Your task to perform on an android device: Clear all items from cart on target.com. Search for "usb-c to usb-b" on target.com, select the first entry, add it to the cart, then select checkout. Image 0: 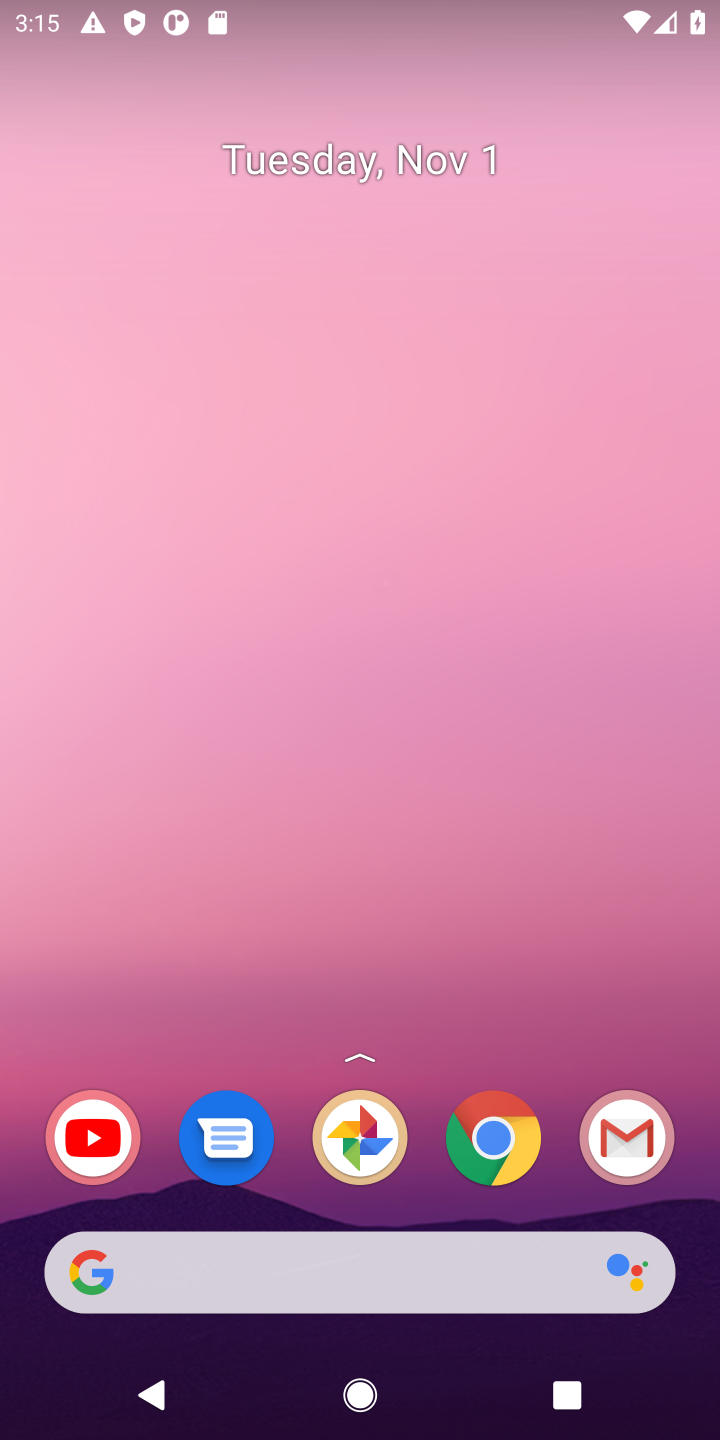
Step 0: click (507, 1124)
Your task to perform on an android device: Clear all items from cart on target.com. Search for "usb-c to usb-b" on target.com, select the first entry, add it to the cart, then select checkout. Image 1: 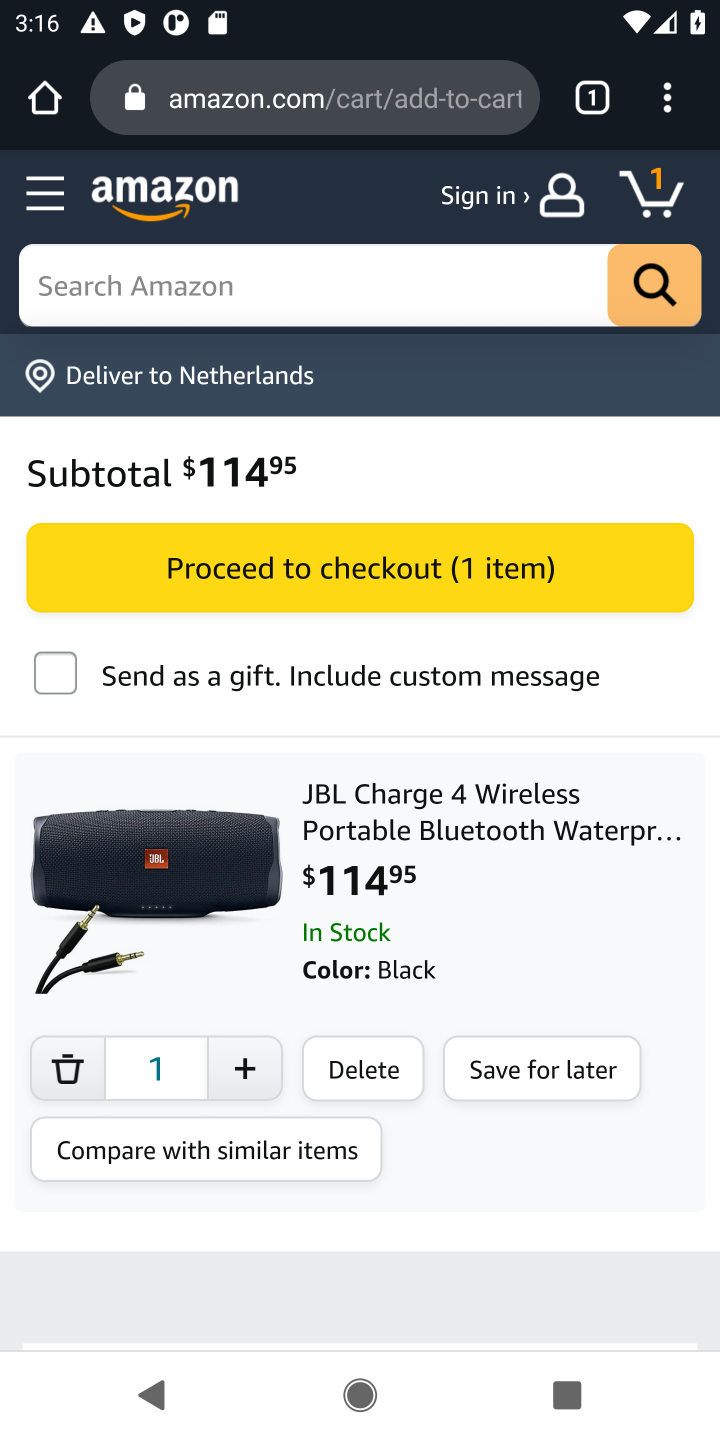
Step 1: click (224, 93)
Your task to perform on an android device: Clear all items from cart on target.com. Search for "usb-c to usb-b" on target.com, select the first entry, add it to the cart, then select checkout. Image 2: 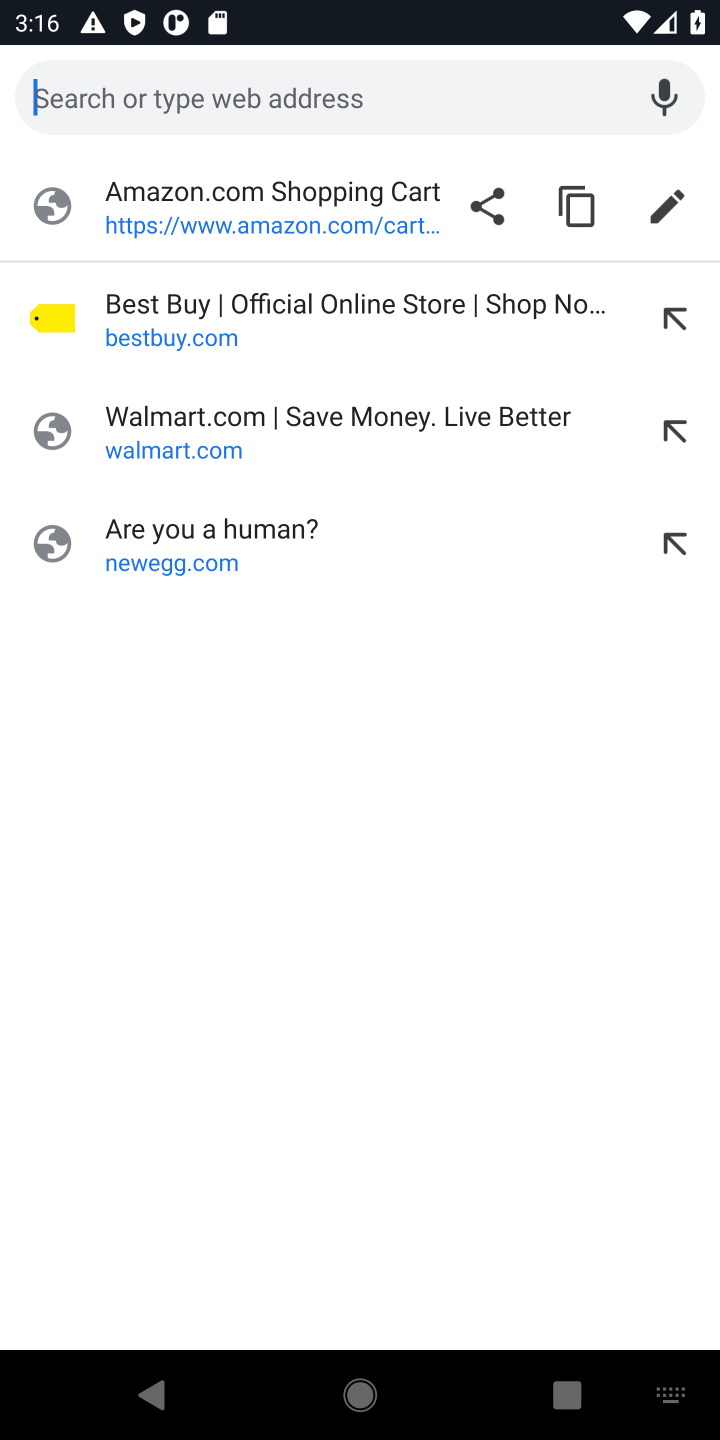
Step 2: type "target"
Your task to perform on an android device: Clear all items from cart on target.com. Search for "usb-c to usb-b" on target.com, select the first entry, add it to the cart, then select checkout. Image 3: 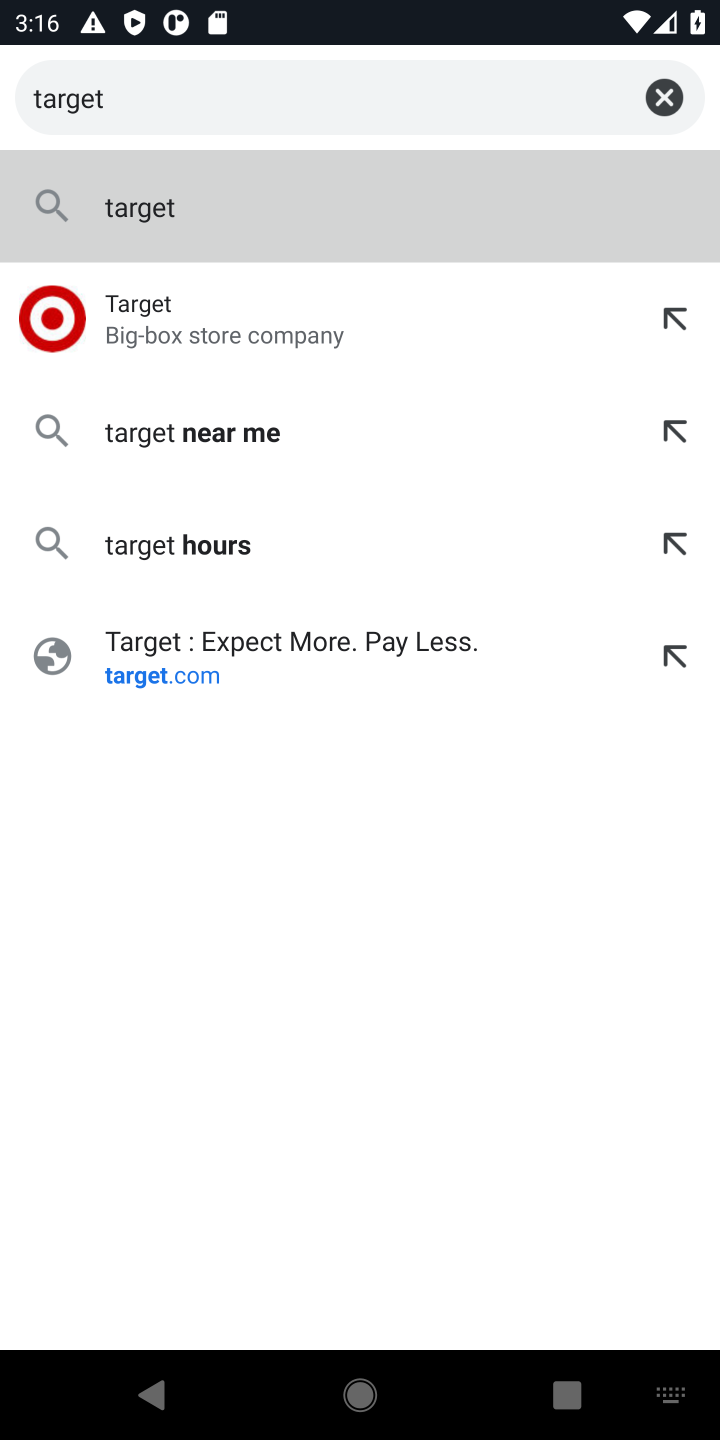
Step 3: click (166, 301)
Your task to perform on an android device: Clear all items from cart on target.com. Search for "usb-c to usb-b" on target.com, select the first entry, add it to the cart, then select checkout. Image 4: 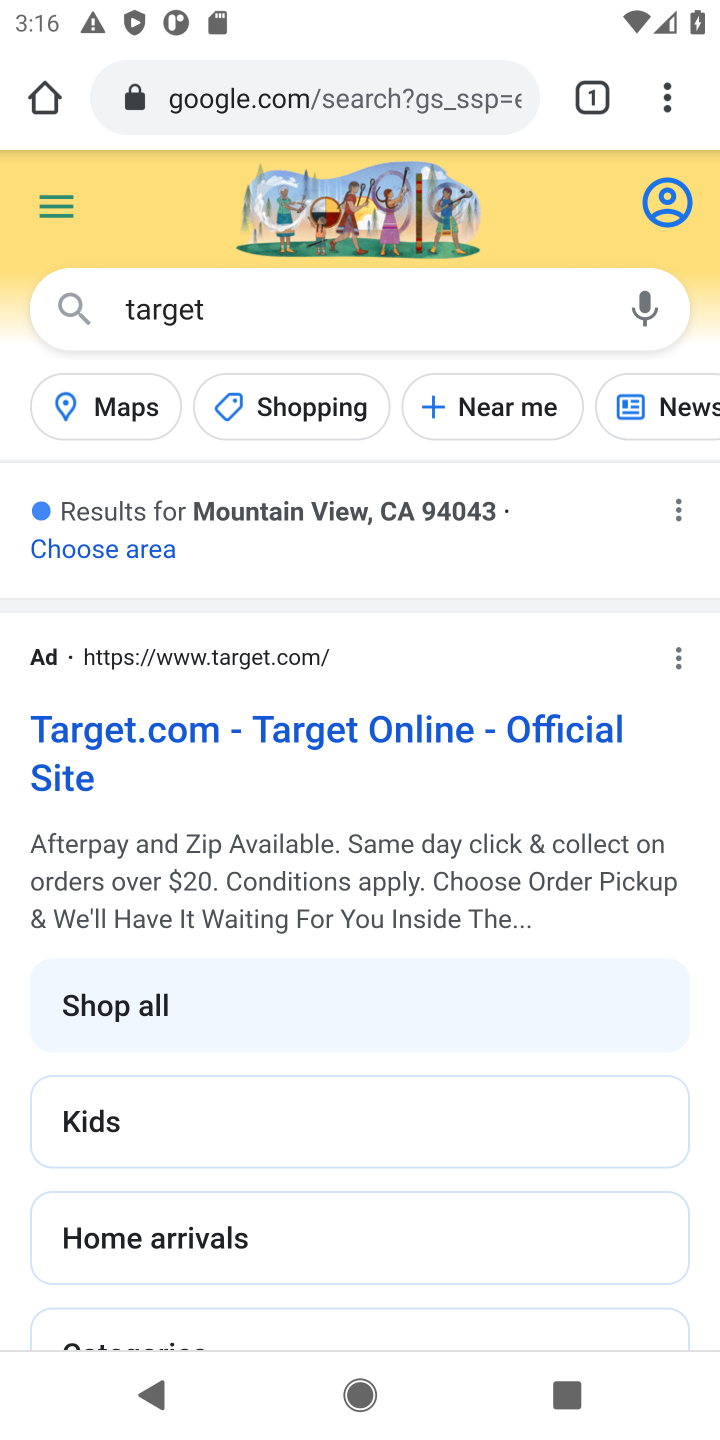
Step 4: click (151, 743)
Your task to perform on an android device: Clear all items from cart on target.com. Search for "usb-c to usb-b" on target.com, select the first entry, add it to the cart, then select checkout. Image 5: 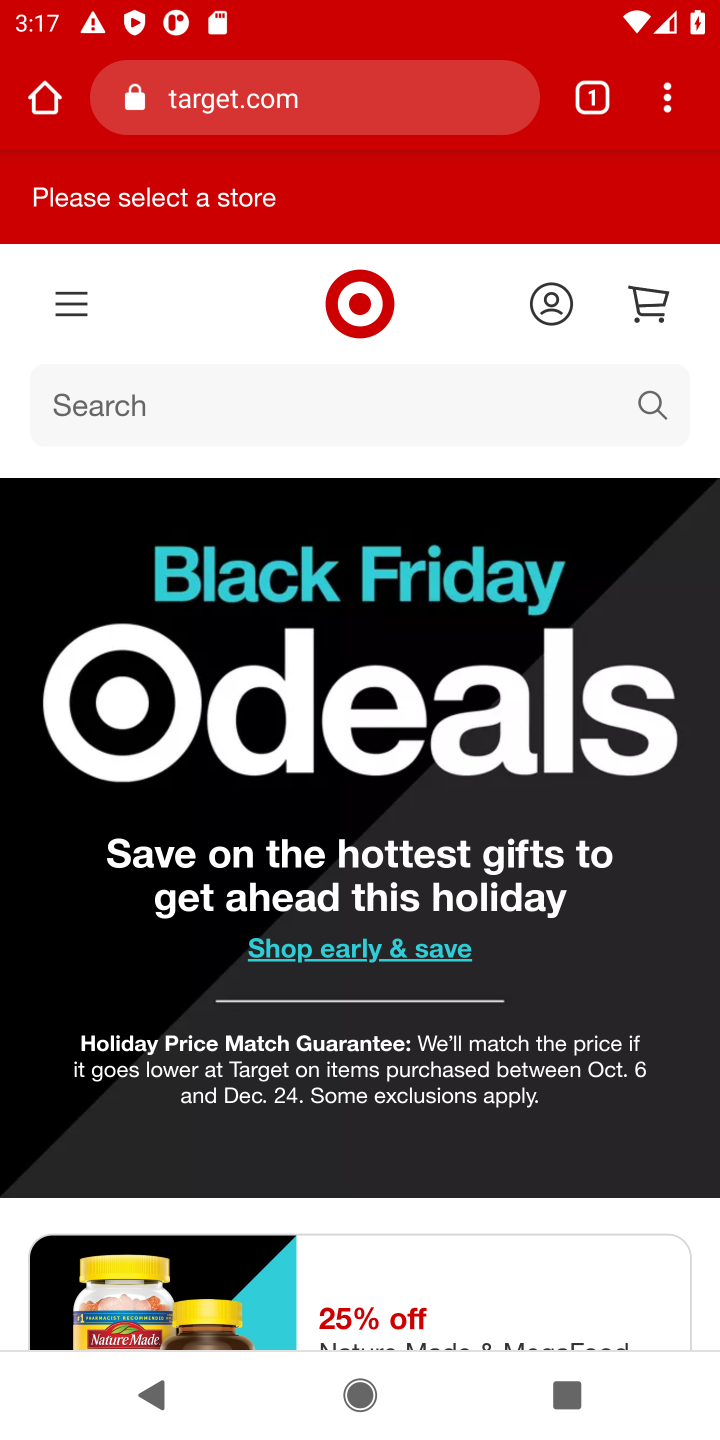
Step 5: click (641, 303)
Your task to perform on an android device: Clear all items from cart on target.com. Search for "usb-c to usb-b" on target.com, select the first entry, add it to the cart, then select checkout. Image 6: 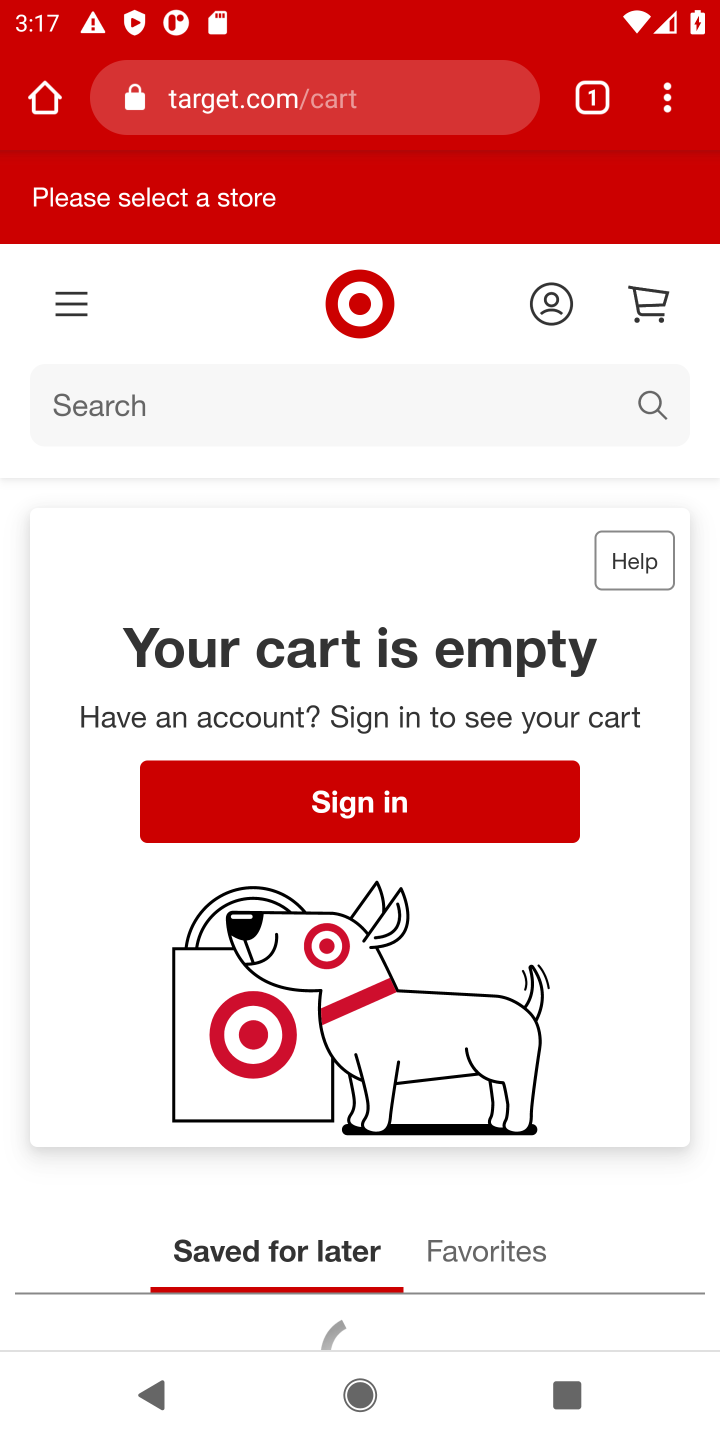
Step 6: click (268, 407)
Your task to perform on an android device: Clear all items from cart on target.com. Search for "usb-c to usb-b" on target.com, select the first entry, add it to the cart, then select checkout. Image 7: 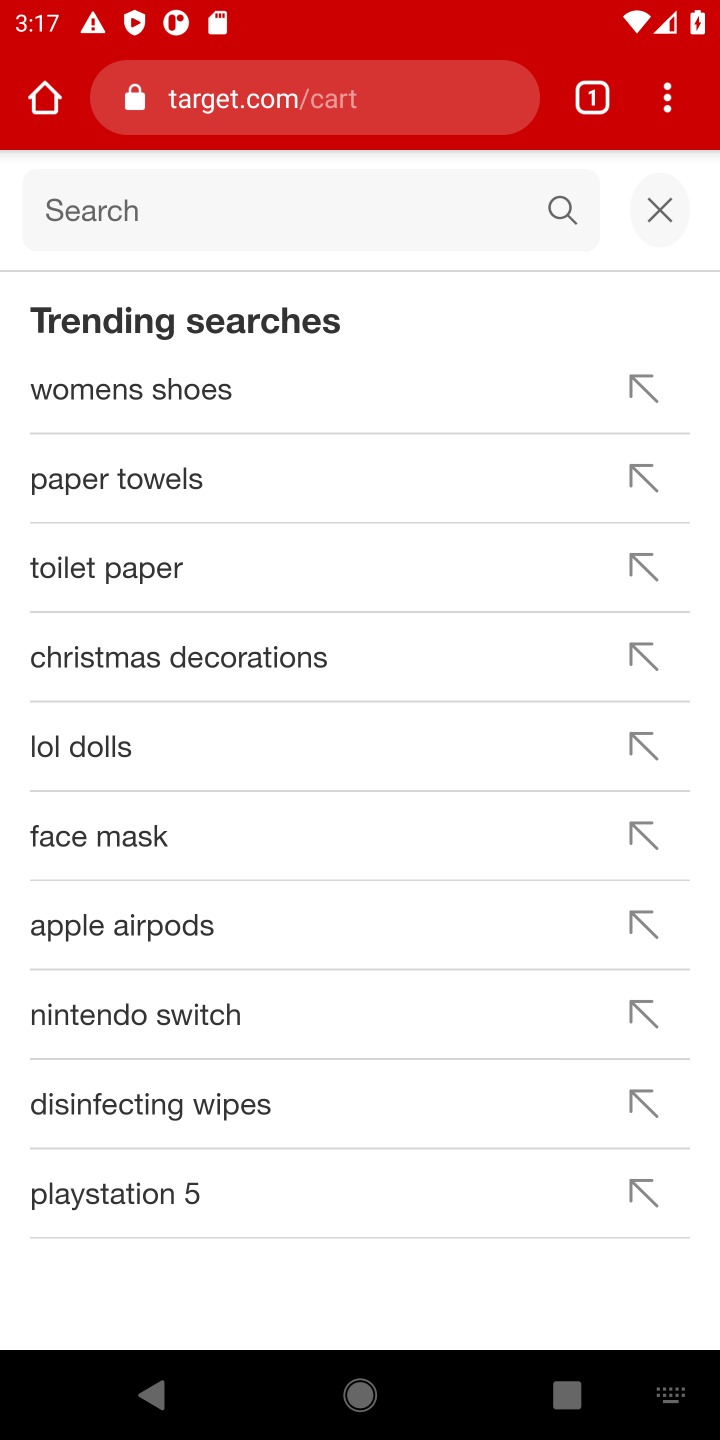
Step 7: type "usb-c to usb-b"
Your task to perform on an android device: Clear all items from cart on target.com. Search for "usb-c to usb-b" on target.com, select the first entry, add it to the cart, then select checkout. Image 8: 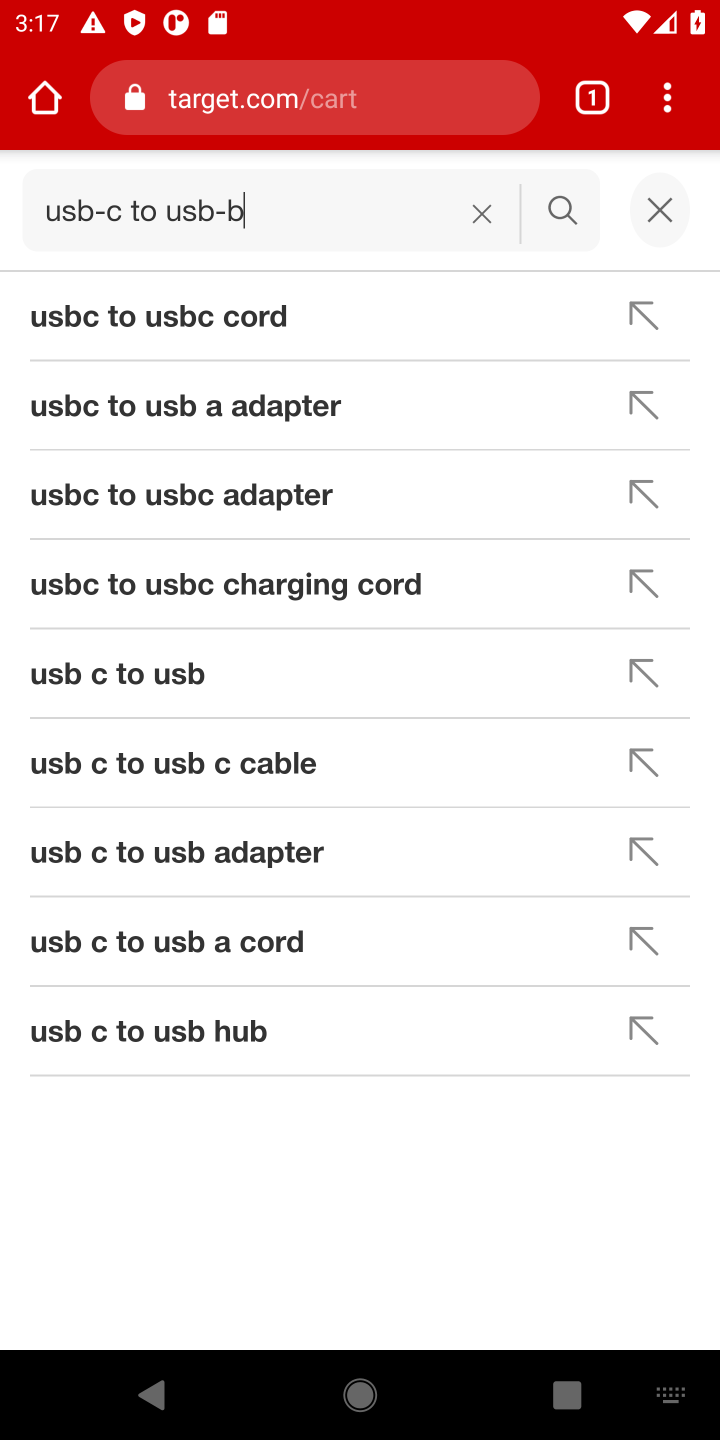
Step 8: click (556, 203)
Your task to perform on an android device: Clear all items from cart on target.com. Search for "usb-c to usb-b" on target.com, select the first entry, add it to the cart, then select checkout. Image 9: 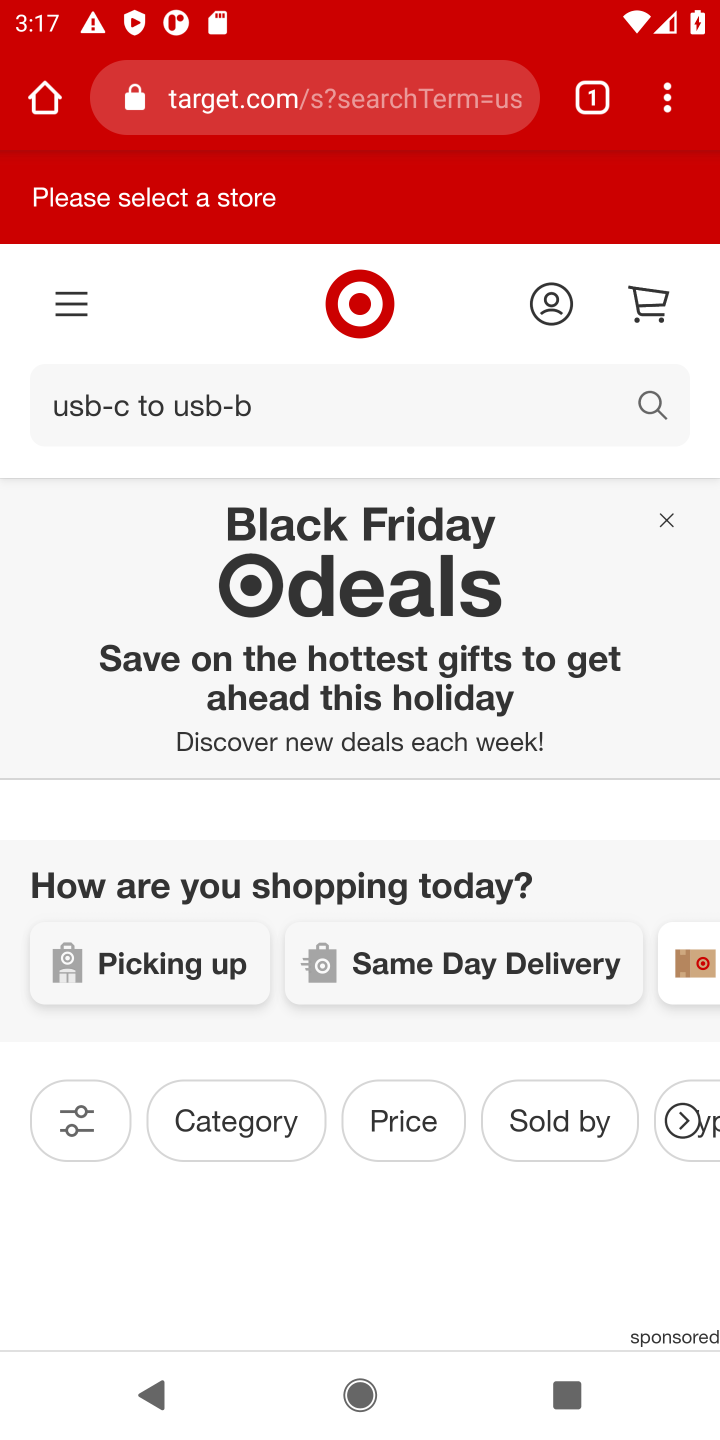
Step 9: drag from (271, 1179) to (296, 854)
Your task to perform on an android device: Clear all items from cart on target.com. Search for "usb-c to usb-b" on target.com, select the first entry, add it to the cart, then select checkout. Image 10: 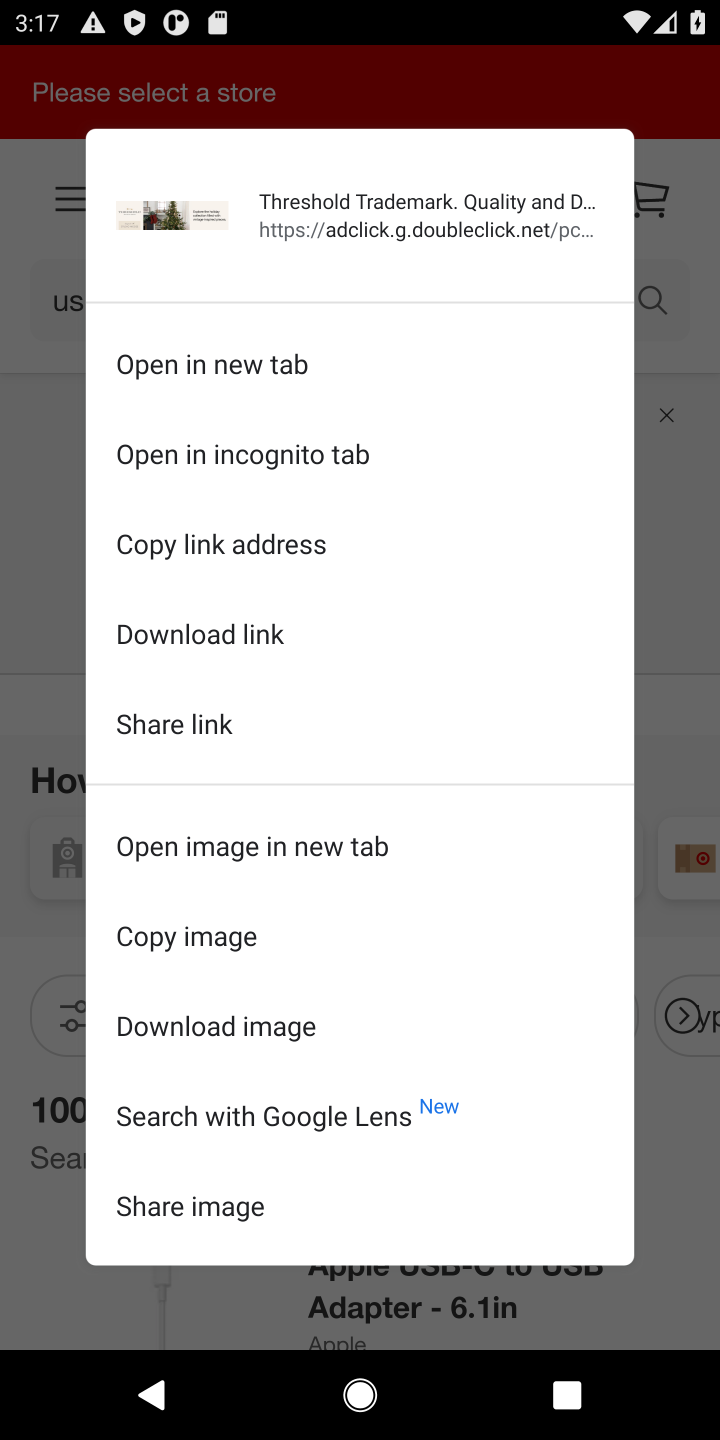
Step 10: click (30, 890)
Your task to perform on an android device: Clear all items from cart on target.com. Search for "usb-c to usb-b" on target.com, select the first entry, add it to the cart, then select checkout. Image 11: 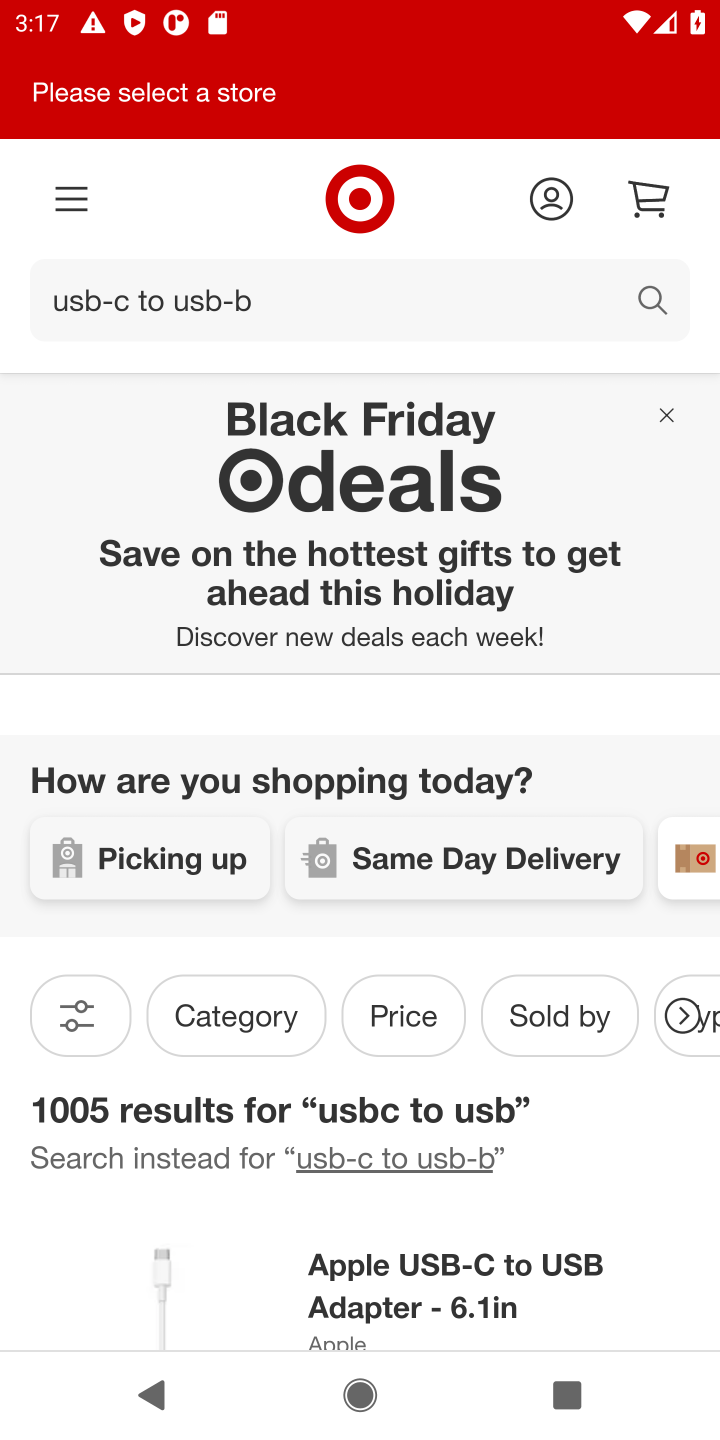
Step 11: drag from (278, 1128) to (318, 659)
Your task to perform on an android device: Clear all items from cart on target.com. Search for "usb-c to usb-b" on target.com, select the first entry, add it to the cart, then select checkout. Image 12: 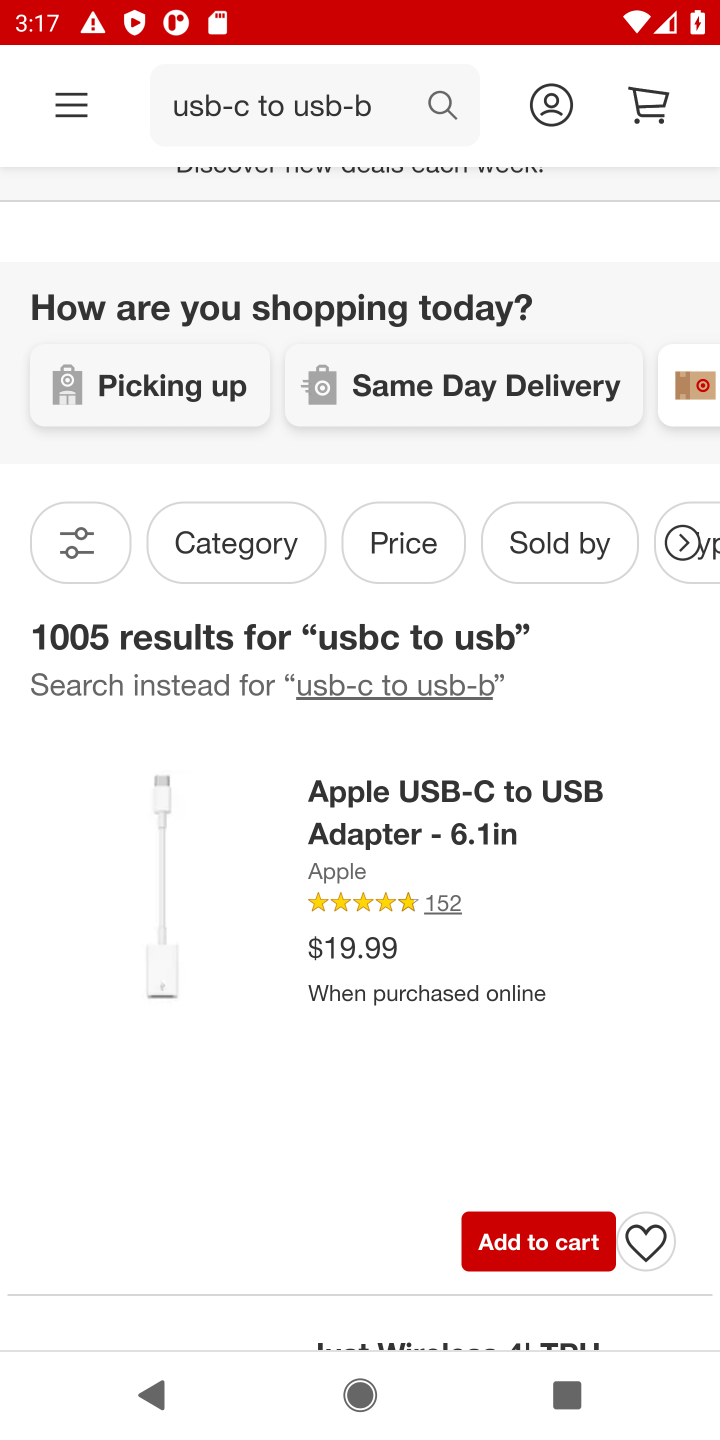
Step 12: click (505, 1232)
Your task to perform on an android device: Clear all items from cart on target.com. Search for "usb-c to usb-b" on target.com, select the first entry, add it to the cart, then select checkout. Image 13: 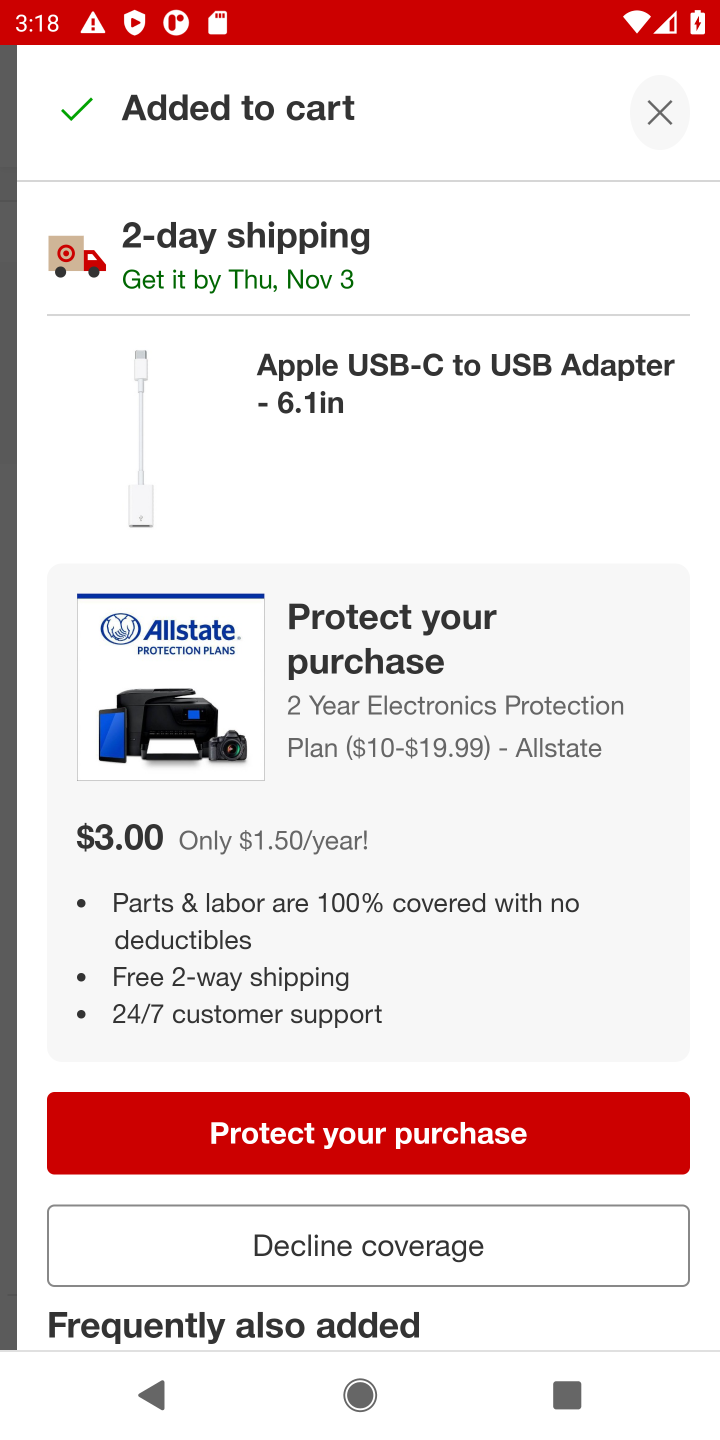
Step 13: click (438, 1251)
Your task to perform on an android device: Clear all items from cart on target.com. Search for "usb-c to usb-b" on target.com, select the first entry, add it to the cart, then select checkout. Image 14: 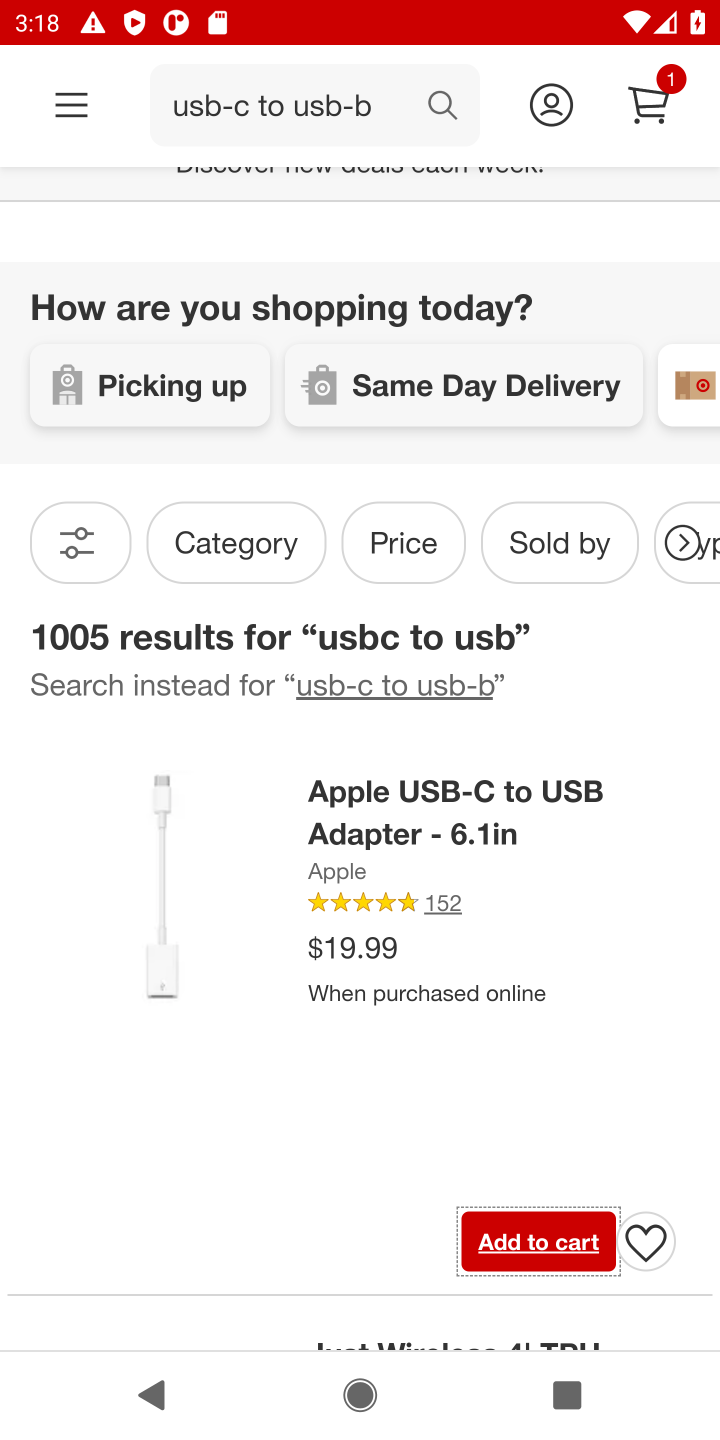
Step 14: click (648, 101)
Your task to perform on an android device: Clear all items from cart on target.com. Search for "usb-c to usb-b" on target.com, select the first entry, add it to the cart, then select checkout. Image 15: 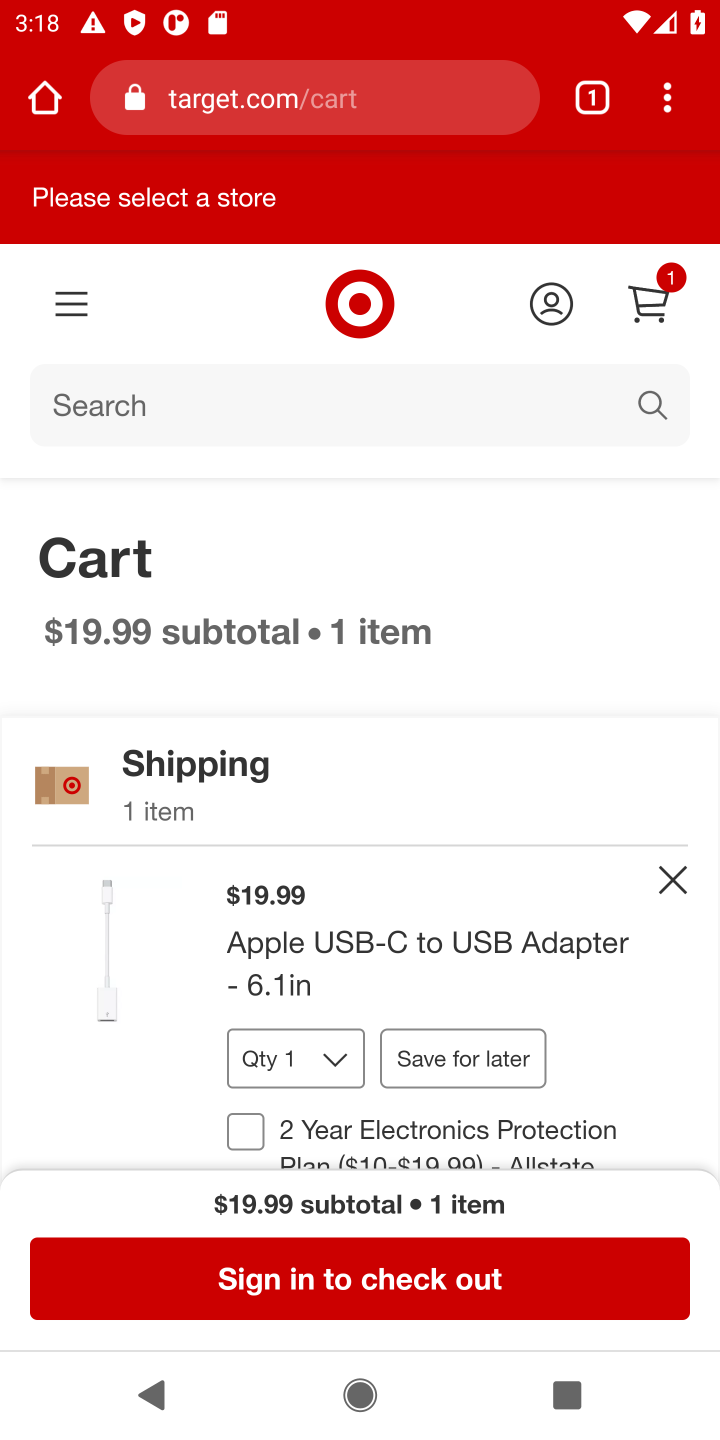
Step 15: click (398, 1281)
Your task to perform on an android device: Clear all items from cart on target.com. Search for "usb-c to usb-b" on target.com, select the first entry, add it to the cart, then select checkout. Image 16: 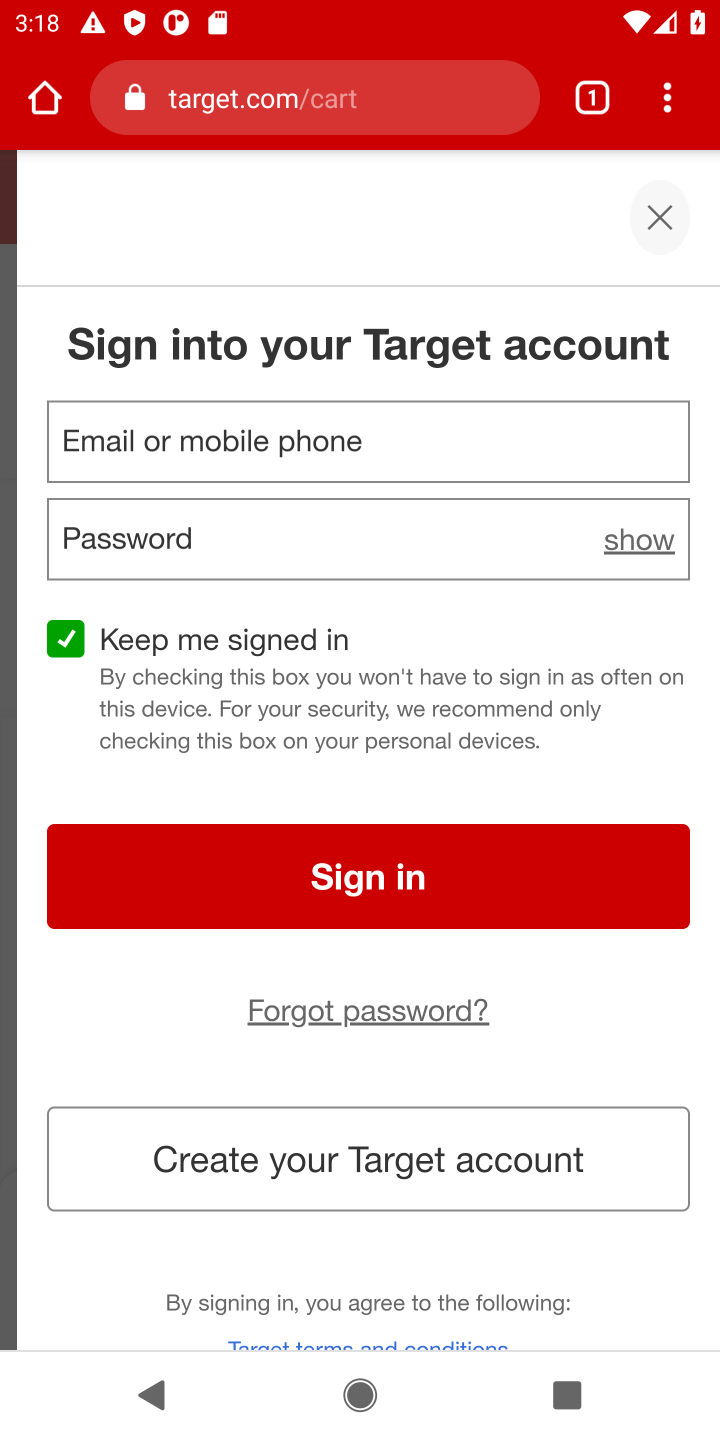
Step 16: task complete